Your task to perform on an android device: Open internet settings Image 0: 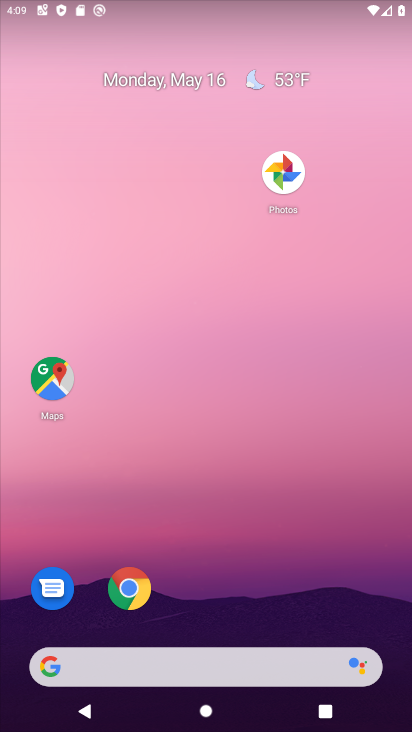
Step 0: click (149, 10)
Your task to perform on an android device: Open internet settings Image 1: 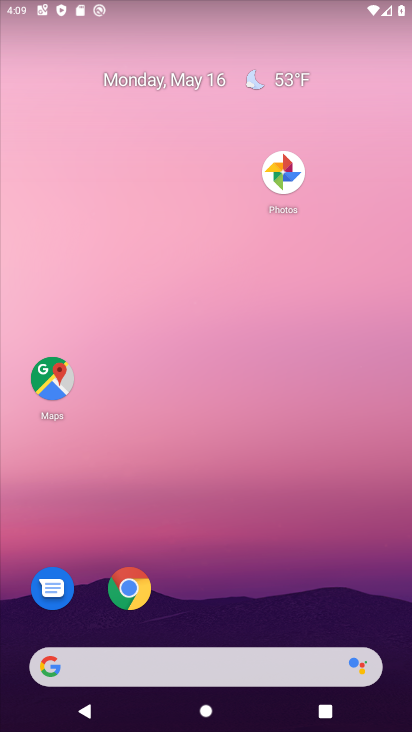
Step 1: drag from (149, 10) to (128, 427)
Your task to perform on an android device: Open internet settings Image 2: 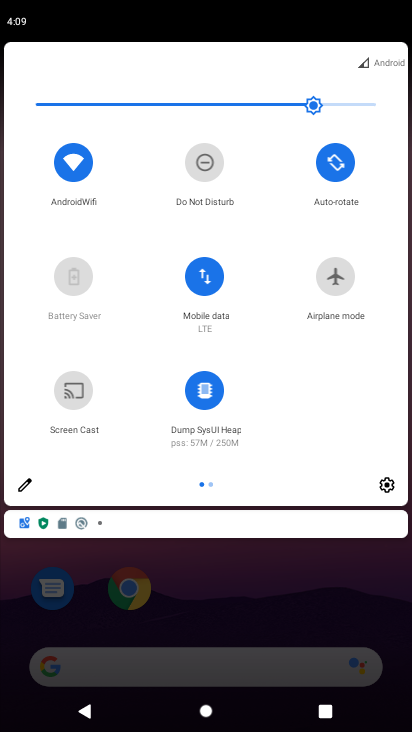
Step 2: click (198, 273)
Your task to perform on an android device: Open internet settings Image 3: 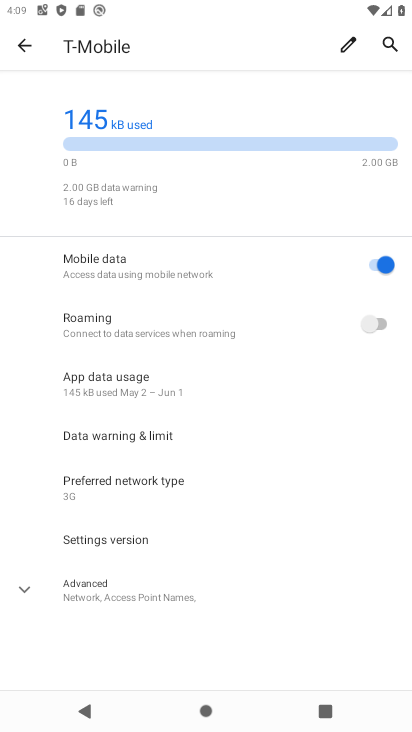
Step 3: task complete